Your task to perform on an android device: What's the weather going to be tomorrow? Image 0: 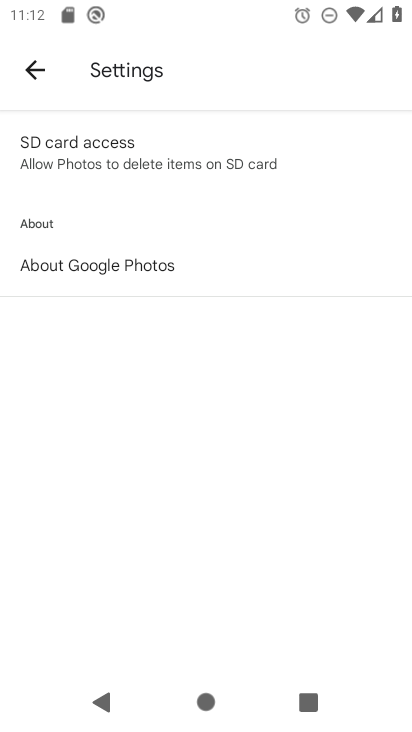
Step 0: press home button
Your task to perform on an android device: What's the weather going to be tomorrow? Image 1: 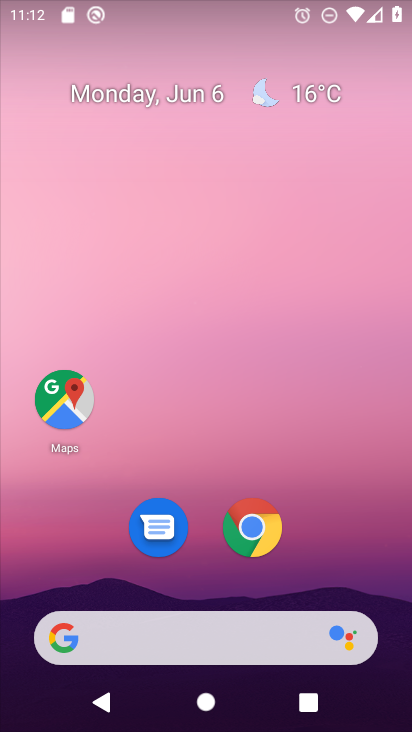
Step 1: drag from (350, 560) to (357, 518)
Your task to perform on an android device: What's the weather going to be tomorrow? Image 2: 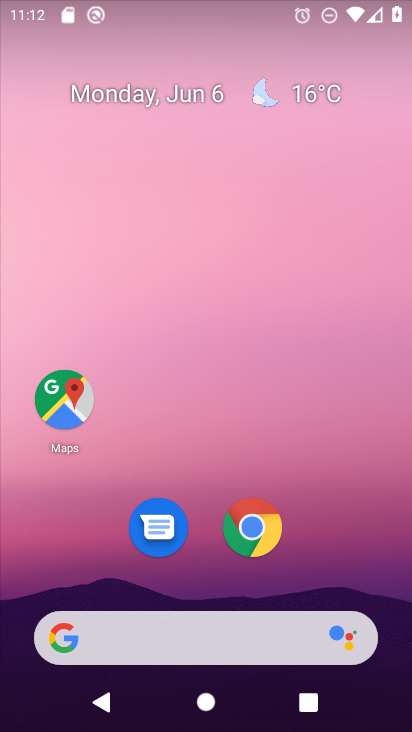
Step 2: click (294, 102)
Your task to perform on an android device: What's the weather going to be tomorrow? Image 3: 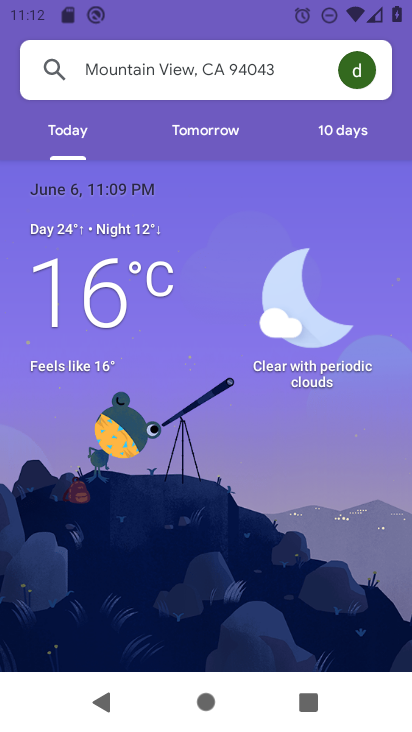
Step 3: click (209, 138)
Your task to perform on an android device: What's the weather going to be tomorrow? Image 4: 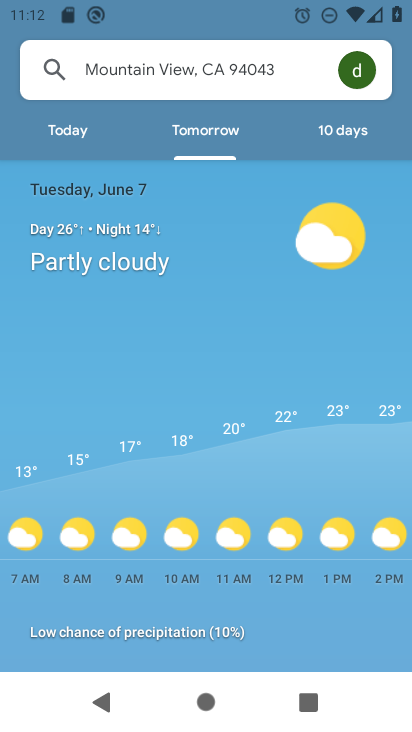
Step 4: task complete